Your task to perform on an android device: turn off picture-in-picture Image 0: 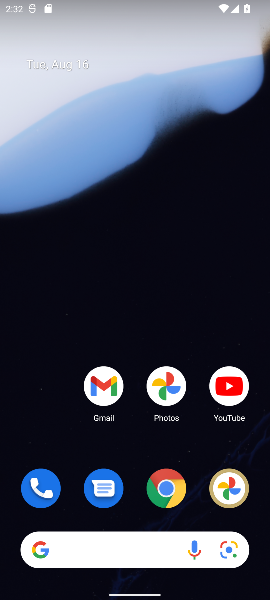
Step 0: drag from (155, 270) to (151, 0)
Your task to perform on an android device: turn off picture-in-picture Image 1: 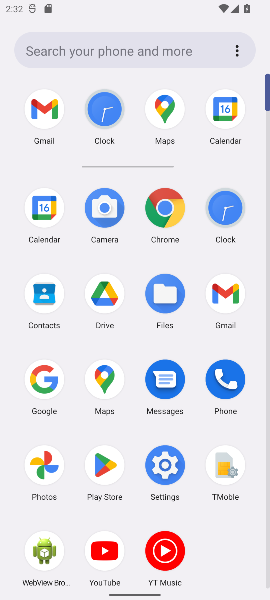
Step 1: task complete